Your task to perform on an android device: open chrome privacy settings Image 0: 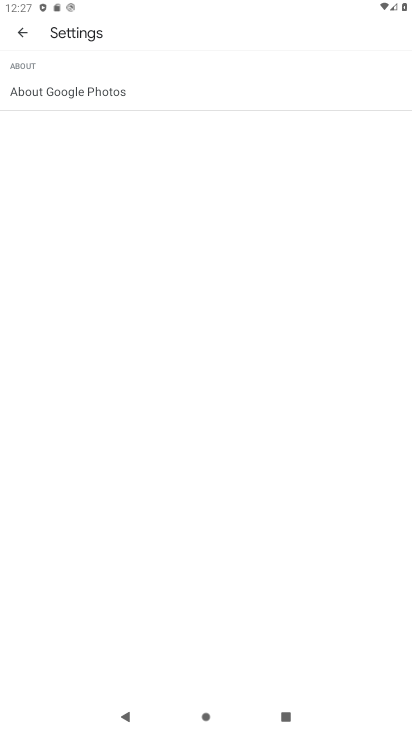
Step 0: press home button
Your task to perform on an android device: open chrome privacy settings Image 1: 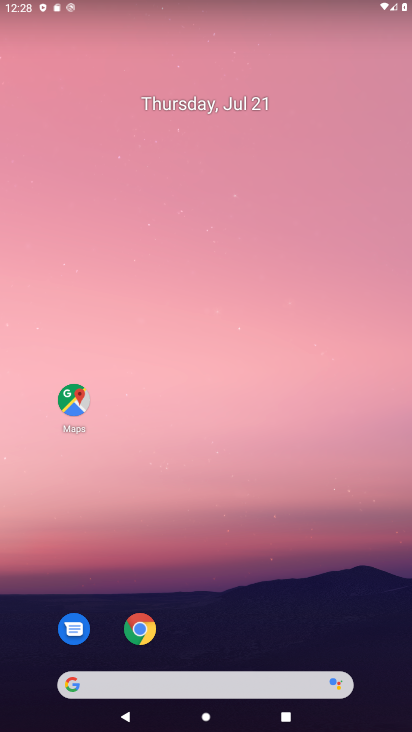
Step 1: drag from (259, 622) to (202, 193)
Your task to perform on an android device: open chrome privacy settings Image 2: 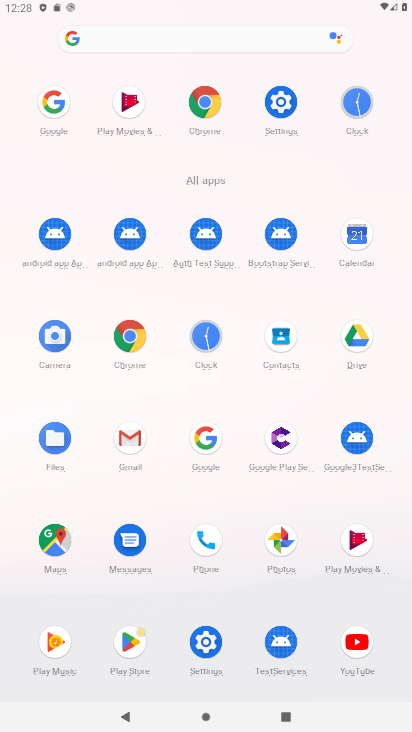
Step 2: click (203, 100)
Your task to perform on an android device: open chrome privacy settings Image 3: 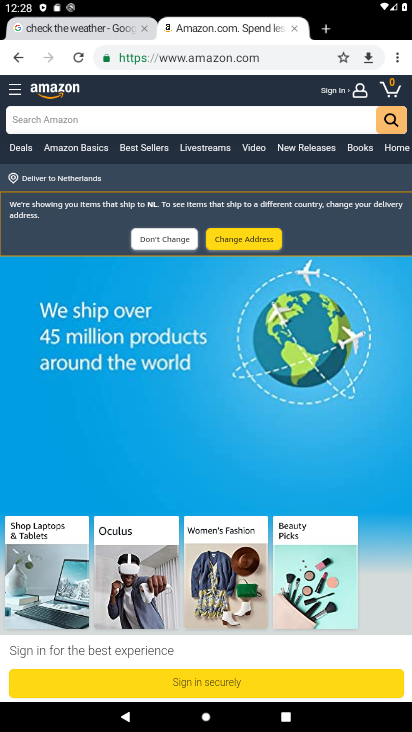
Step 3: click (404, 29)
Your task to perform on an android device: open chrome privacy settings Image 4: 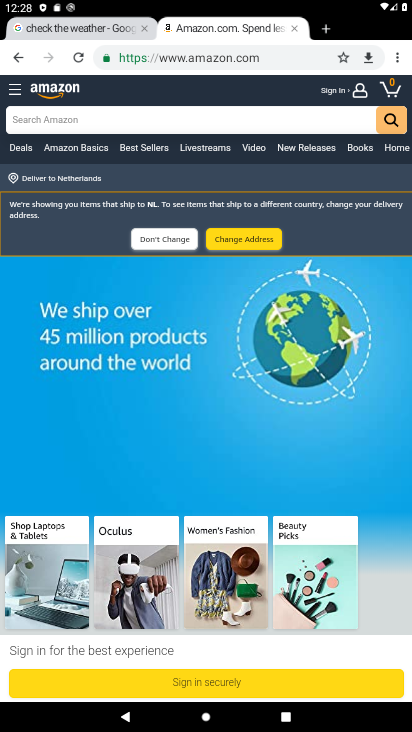
Step 4: click (400, 61)
Your task to perform on an android device: open chrome privacy settings Image 5: 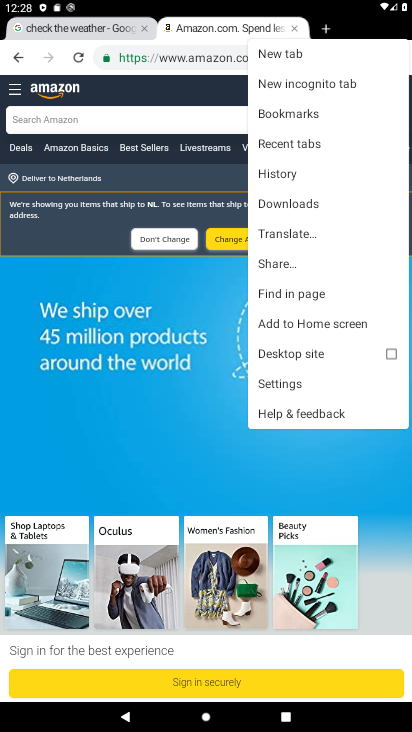
Step 5: click (324, 385)
Your task to perform on an android device: open chrome privacy settings Image 6: 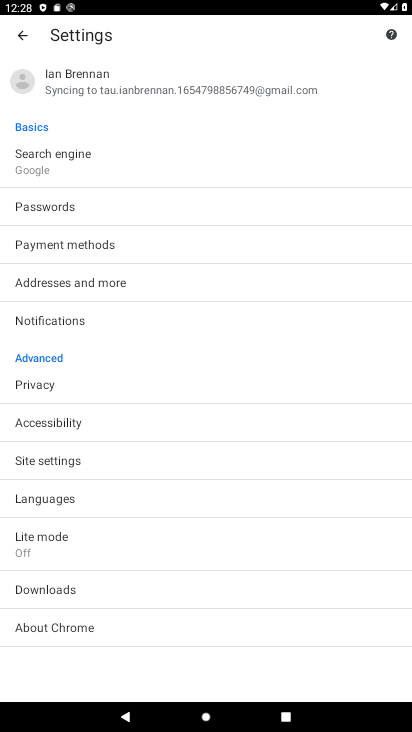
Step 6: click (188, 380)
Your task to perform on an android device: open chrome privacy settings Image 7: 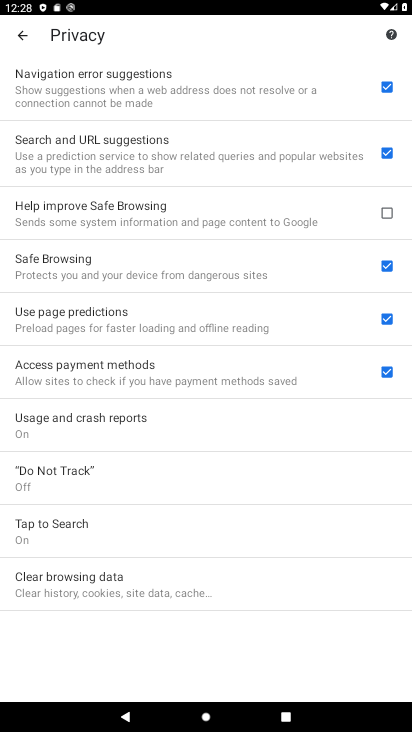
Step 7: task complete